Your task to perform on an android device: Open the calendar app, open the side menu, and click the "Day" option Image 0: 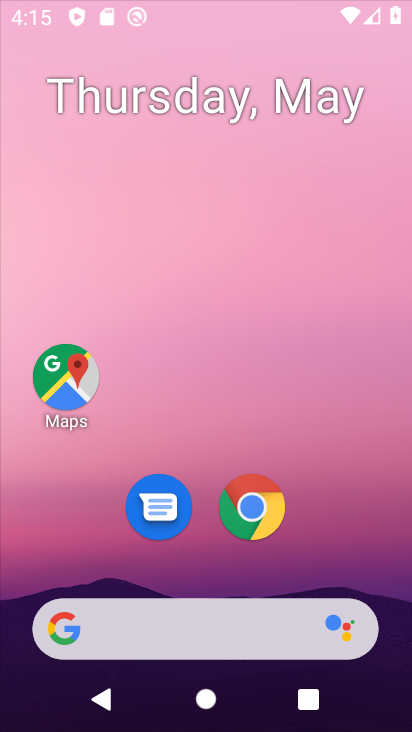
Step 0: drag from (207, 636) to (153, 249)
Your task to perform on an android device: Open the calendar app, open the side menu, and click the "Day" option Image 1: 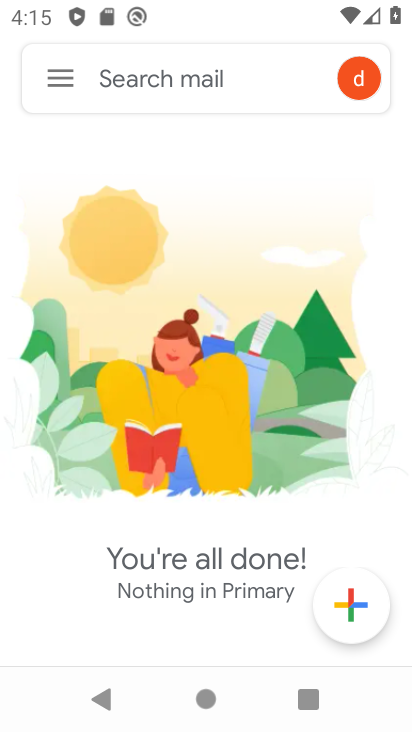
Step 1: press home button
Your task to perform on an android device: Open the calendar app, open the side menu, and click the "Day" option Image 2: 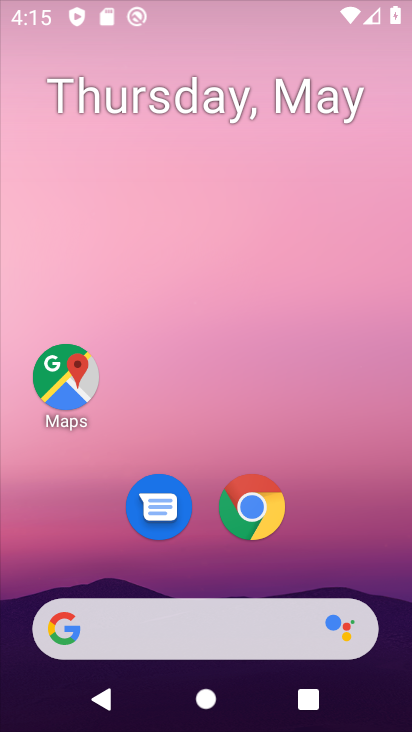
Step 2: drag from (157, 509) to (157, 7)
Your task to perform on an android device: Open the calendar app, open the side menu, and click the "Day" option Image 3: 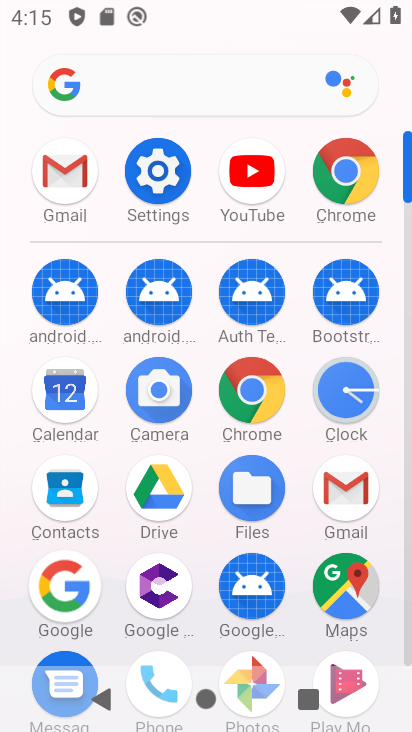
Step 3: click (62, 384)
Your task to perform on an android device: Open the calendar app, open the side menu, and click the "Day" option Image 4: 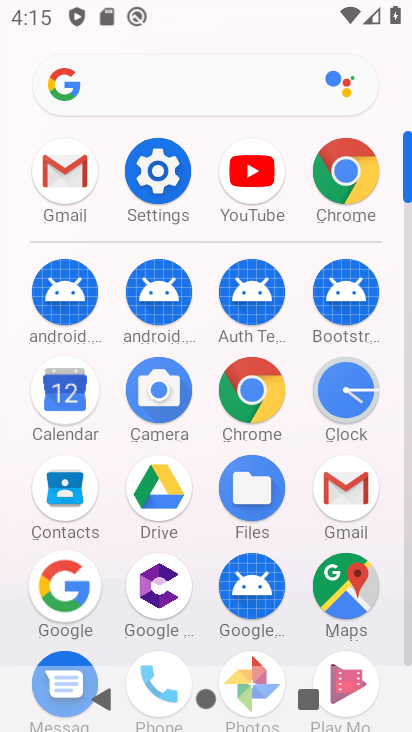
Step 4: click (68, 388)
Your task to perform on an android device: Open the calendar app, open the side menu, and click the "Day" option Image 5: 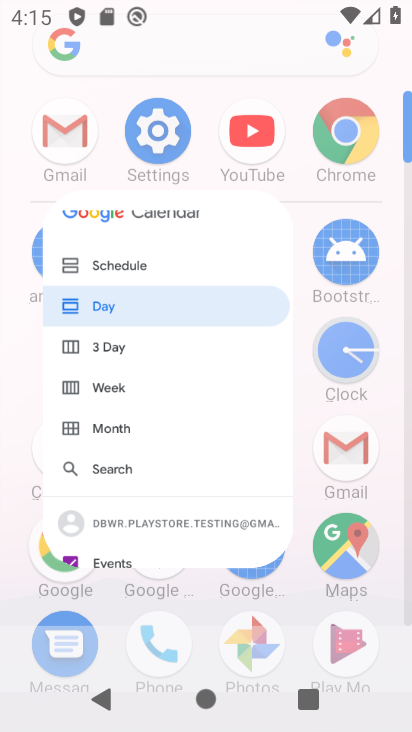
Step 5: click (68, 388)
Your task to perform on an android device: Open the calendar app, open the side menu, and click the "Day" option Image 6: 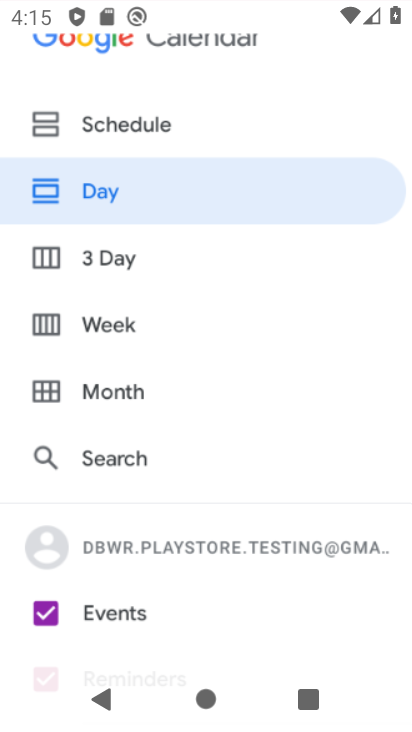
Step 6: click (68, 388)
Your task to perform on an android device: Open the calendar app, open the side menu, and click the "Day" option Image 7: 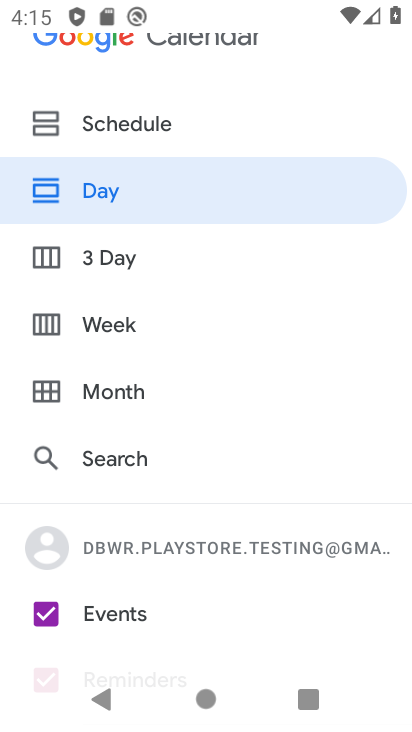
Step 7: click (104, 189)
Your task to perform on an android device: Open the calendar app, open the side menu, and click the "Day" option Image 8: 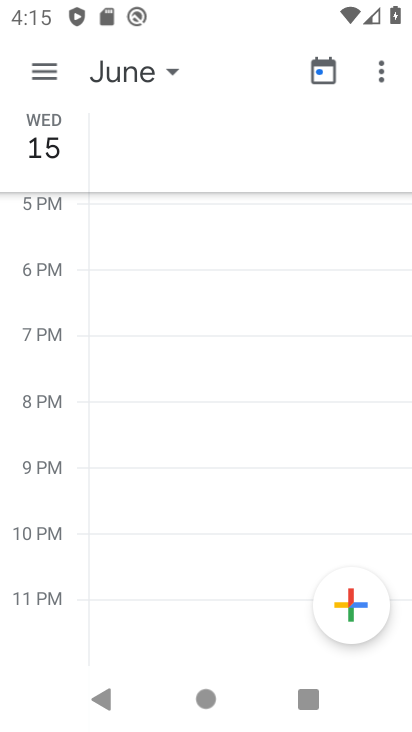
Step 8: task complete